Your task to perform on an android device: Open notification settings Image 0: 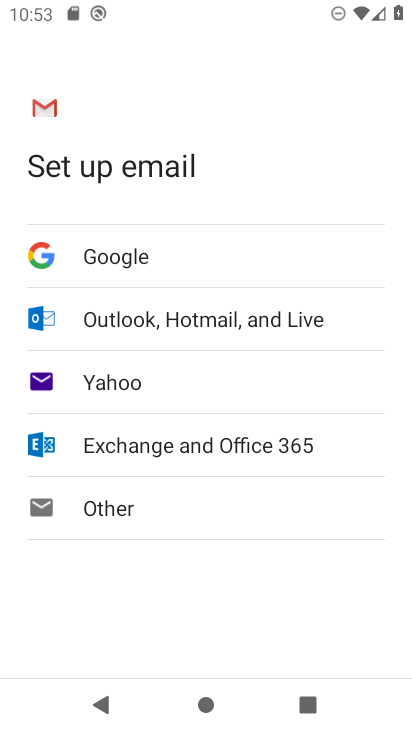
Step 0: press back button
Your task to perform on an android device: Open notification settings Image 1: 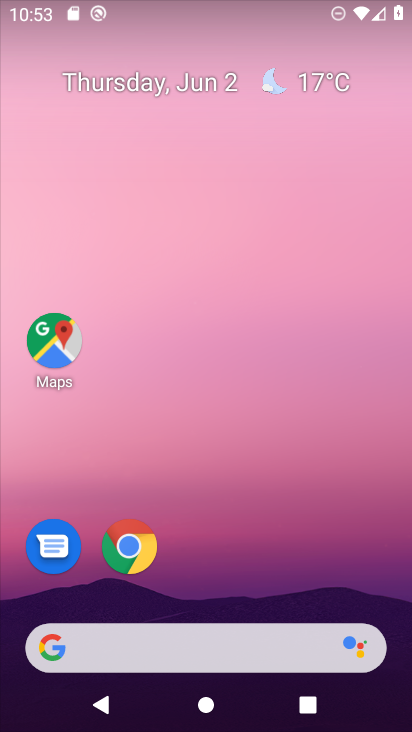
Step 1: drag from (275, 514) to (243, 45)
Your task to perform on an android device: Open notification settings Image 2: 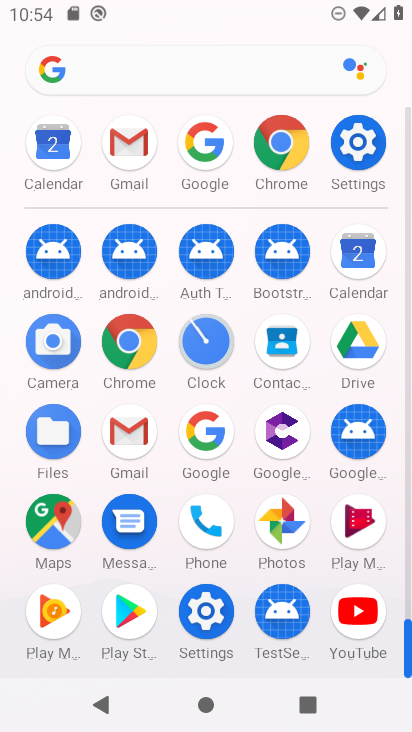
Step 2: click (205, 604)
Your task to perform on an android device: Open notification settings Image 3: 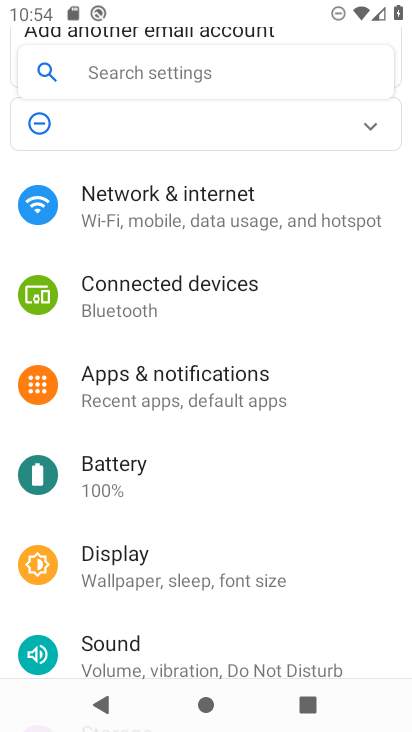
Step 3: click (179, 399)
Your task to perform on an android device: Open notification settings Image 4: 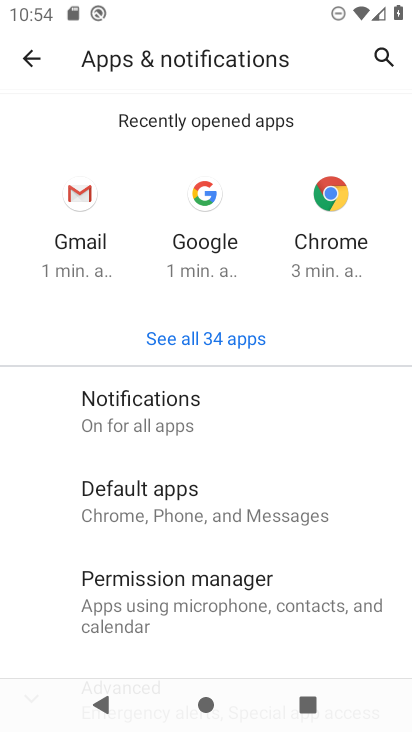
Step 4: click (201, 405)
Your task to perform on an android device: Open notification settings Image 5: 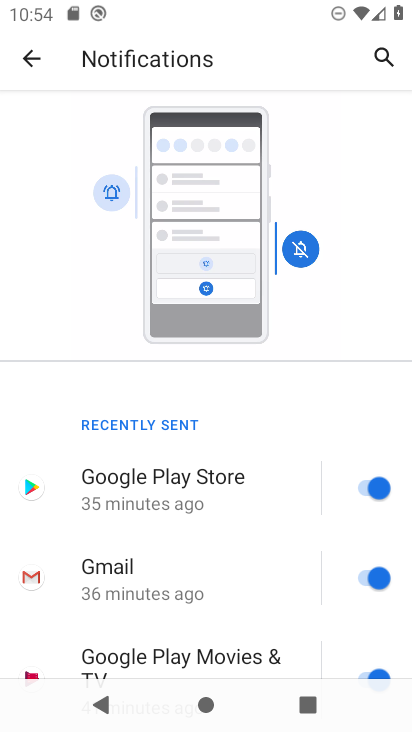
Step 5: drag from (265, 459) to (252, 148)
Your task to perform on an android device: Open notification settings Image 6: 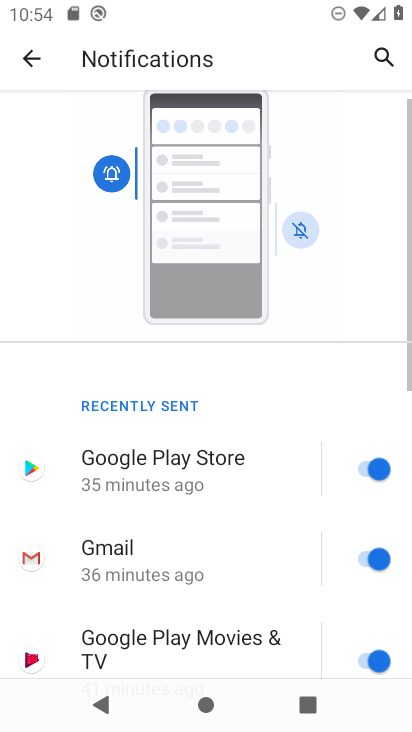
Step 6: drag from (233, 581) to (243, 197)
Your task to perform on an android device: Open notification settings Image 7: 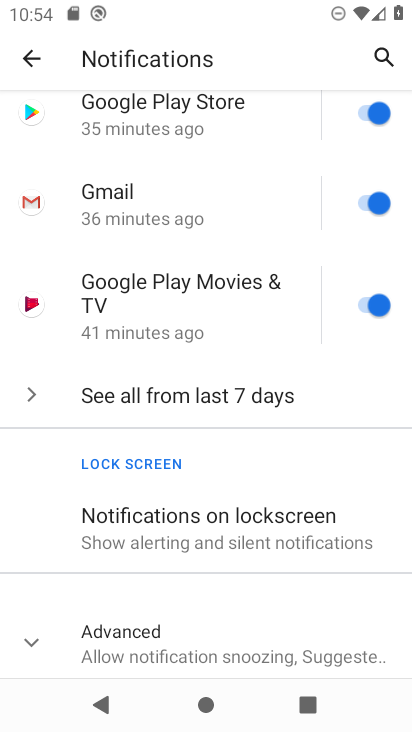
Step 7: drag from (228, 376) to (229, 184)
Your task to perform on an android device: Open notification settings Image 8: 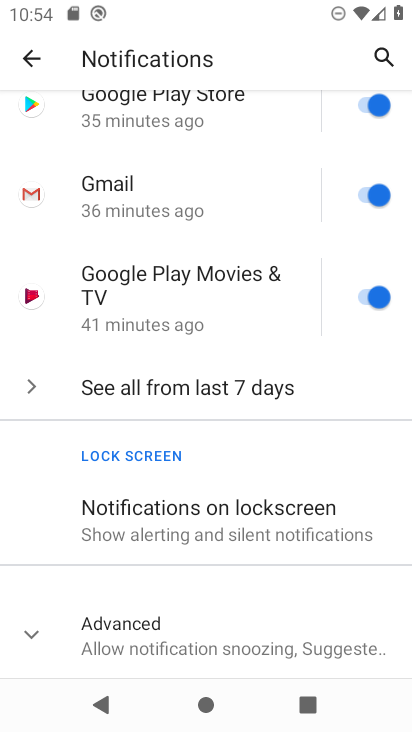
Step 8: click (27, 632)
Your task to perform on an android device: Open notification settings Image 9: 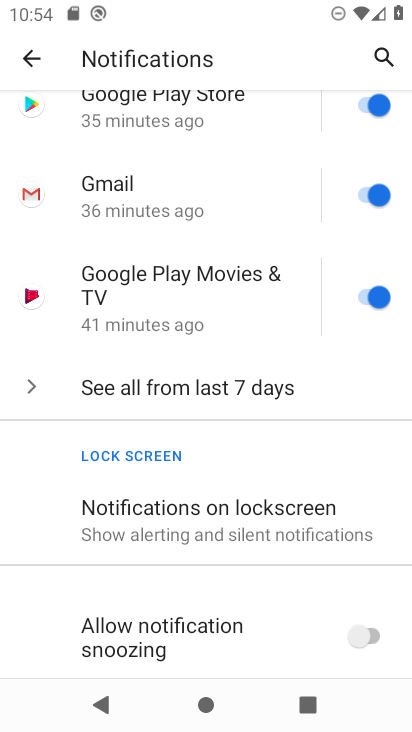
Step 9: task complete